Your task to perform on an android device: Check the weather Image 0: 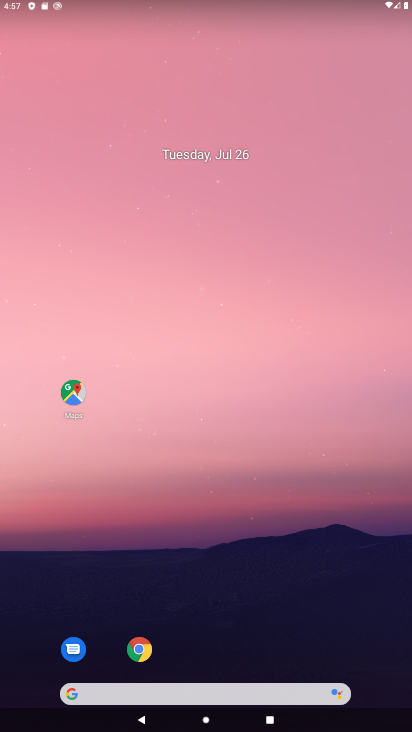
Step 0: click (148, 652)
Your task to perform on an android device: Check the weather Image 1: 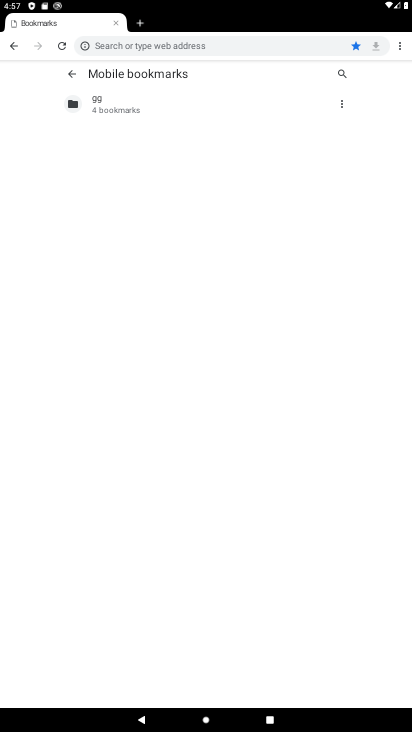
Step 1: click (171, 42)
Your task to perform on an android device: Check the weather Image 2: 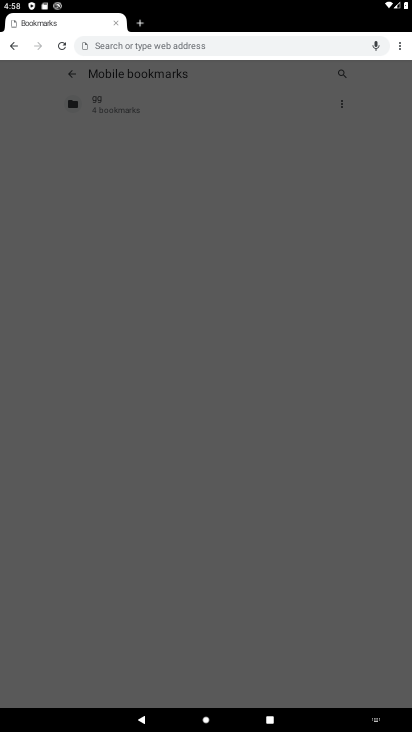
Step 2: type "Check the weather"
Your task to perform on an android device: Check the weather Image 3: 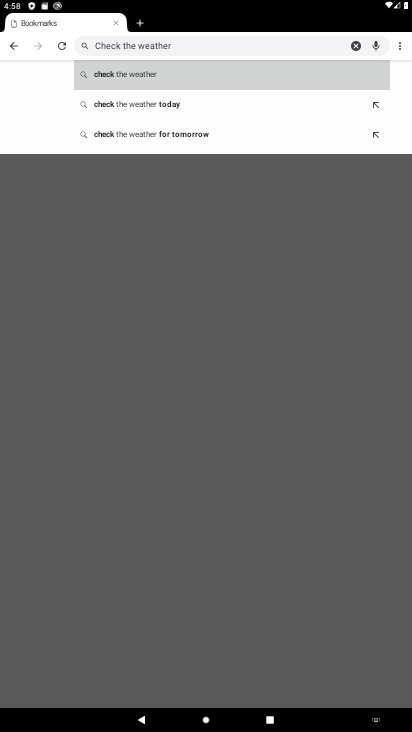
Step 3: click (207, 74)
Your task to perform on an android device: Check the weather Image 4: 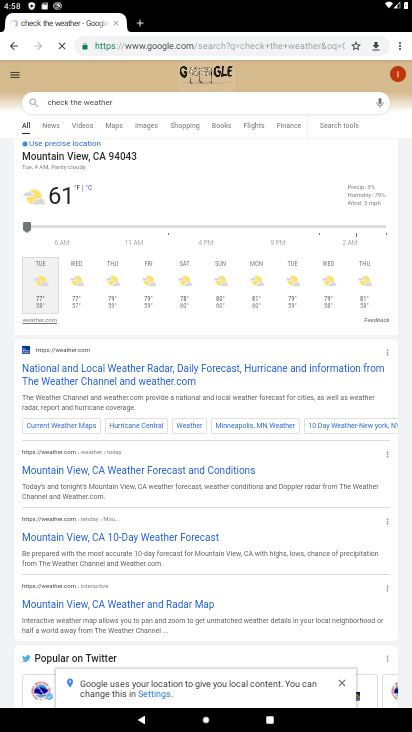
Step 4: task complete